Your task to perform on an android device: turn on sleep mode Image 0: 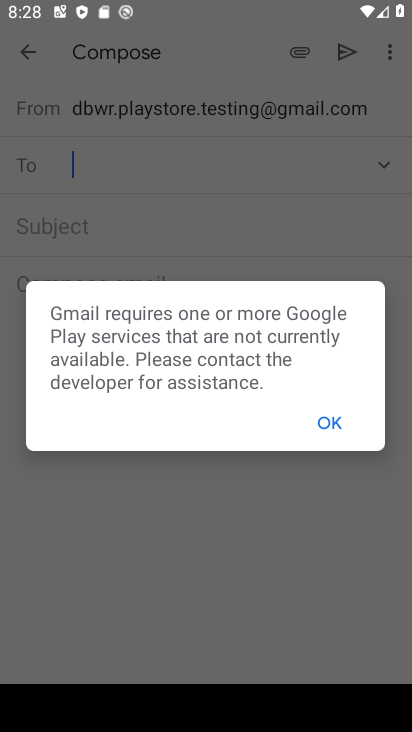
Step 0: press home button
Your task to perform on an android device: turn on sleep mode Image 1: 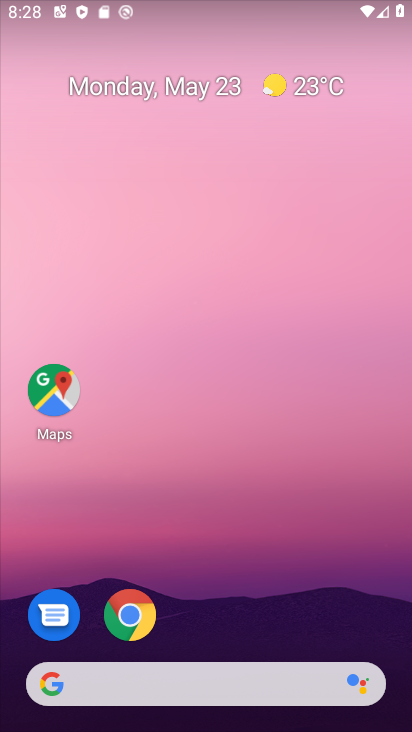
Step 1: drag from (251, 607) to (151, 24)
Your task to perform on an android device: turn on sleep mode Image 2: 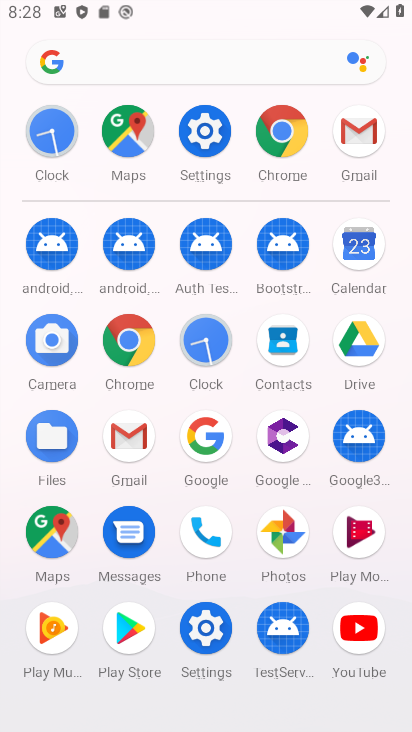
Step 2: click (206, 130)
Your task to perform on an android device: turn on sleep mode Image 3: 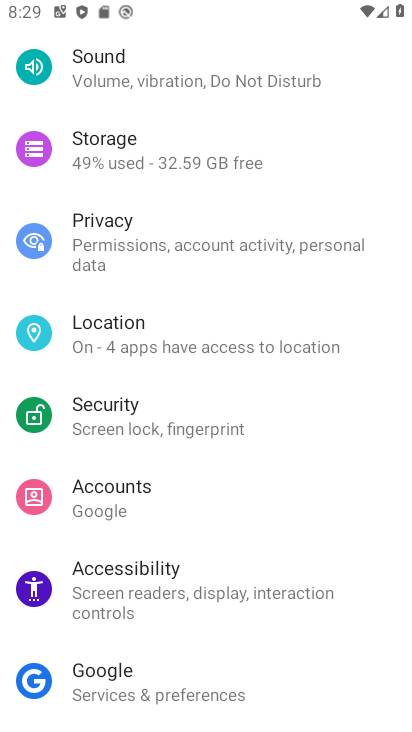
Step 3: drag from (217, 219) to (204, 309)
Your task to perform on an android device: turn on sleep mode Image 4: 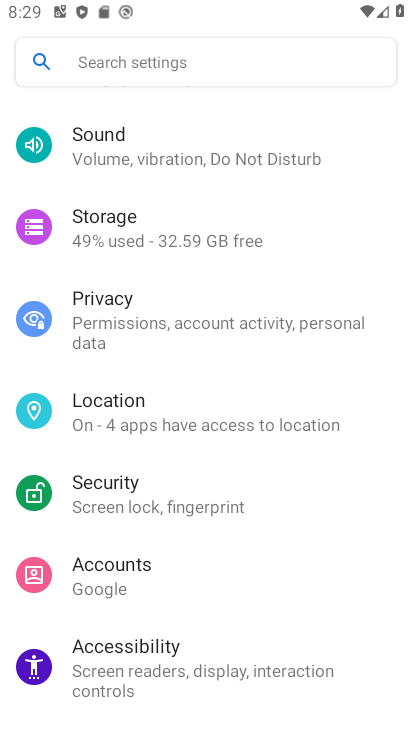
Step 4: drag from (264, 206) to (255, 349)
Your task to perform on an android device: turn on sleep mode Image 5: 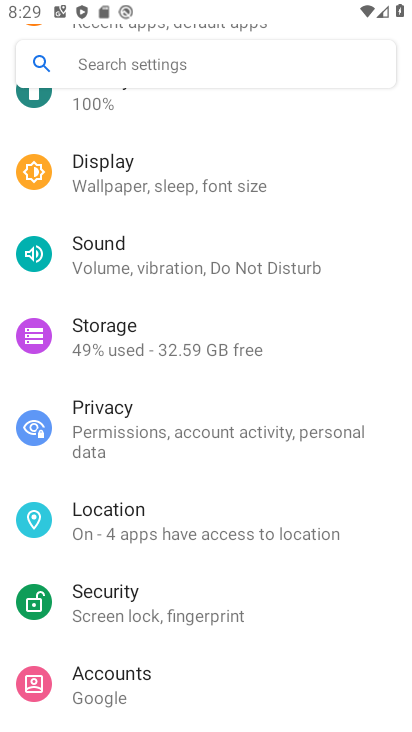
Step 5: drag from (239, 229) to (238, 331)
Your task to perform on an android device: turn on sleep mode Image 6: 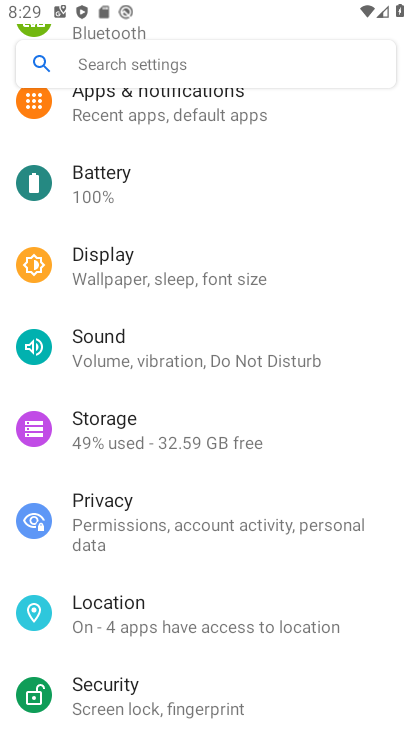
Step 6: click (197, 279)
Your task to perform on an android device: turn on sleep mode Image 7: 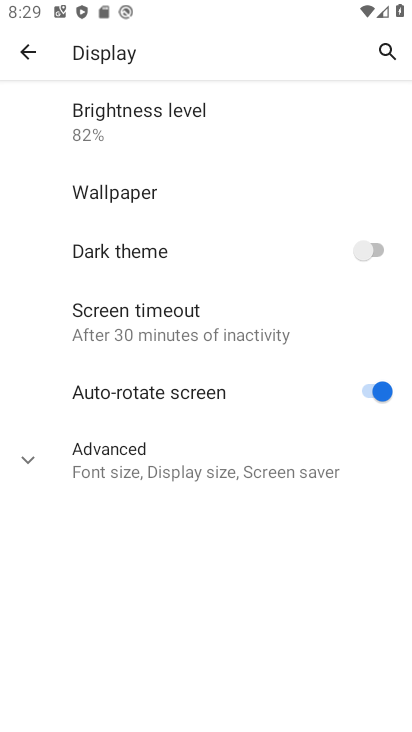
Step 7: click (235, 333)
Your task to perform on an android device: turn on sleep mode Image 8: 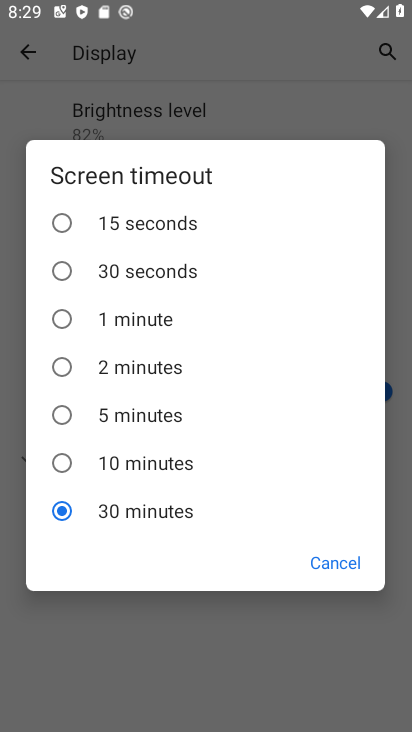
Step 8: click (350, 567)
Your task to perform on an android device: turn on sleep mode Image 9: 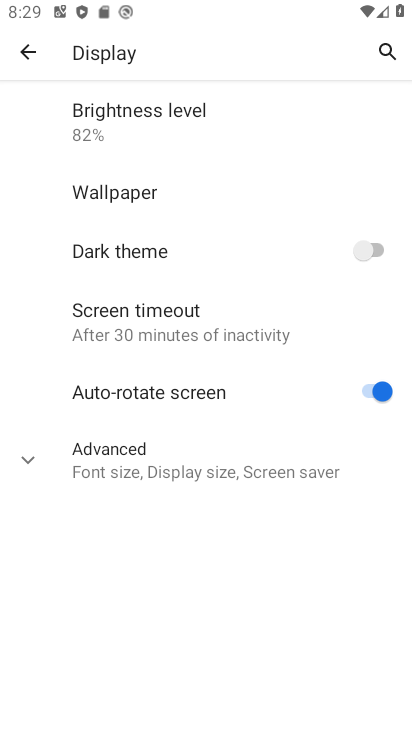
Step 9: click (134, 467)
Your task to perform on an android device: turn on sleep mode Image 10: 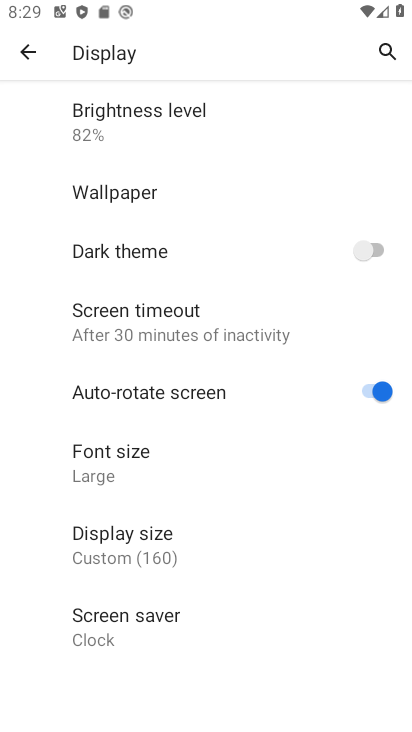
Step 10: task complete